Your task to perform on an android device: Open calendar and show me the fourth week of next month Image 0: 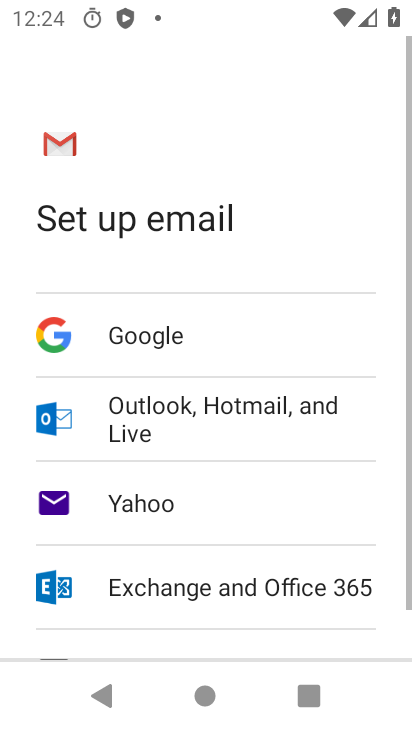
Step 0: press back button
Your task to perform on an android device: Open calendar and show me the fourth week of next month Image 1: 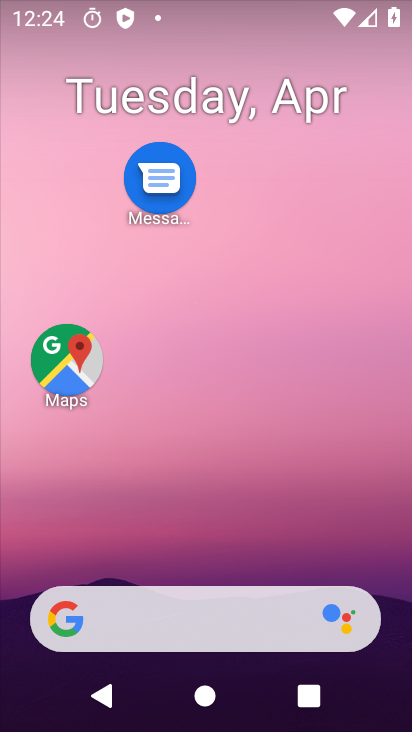
Step 1: drag from (201, 714) to (175, 7)
Your task to perform on an android device: Open calendar and show me the fourth week of next month Image 2: 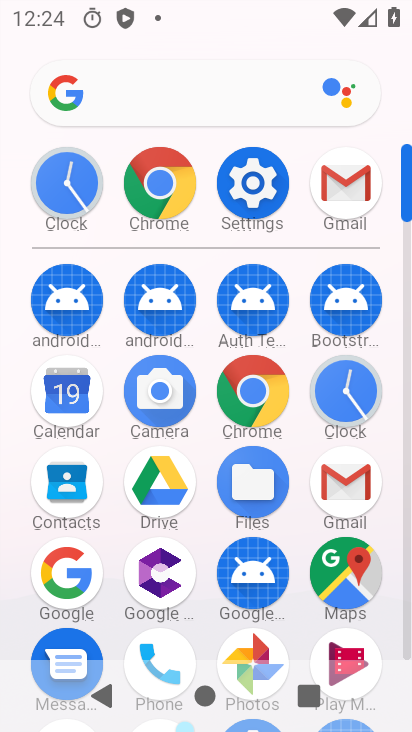
Step 2: click (57, 403)
Your task to perform on an android device: Open calendar and show me the fourth week of next month Image 3: 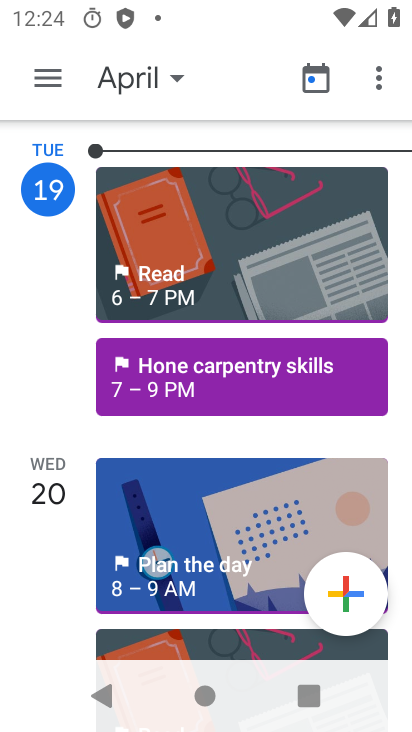
Step 3: click (125, 73)
Your task to perform on an android device: Open calendar and show me the fourth week of next month Image 4: 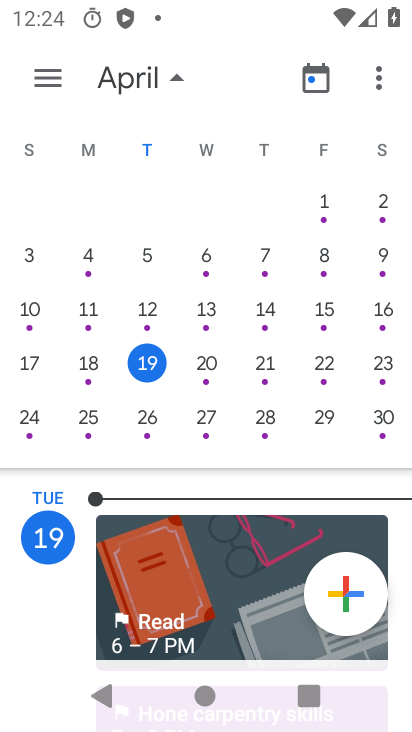
Step 4: drag from (369, 344) to (6, 308)
Your task to perform on an android device: Open calendar and show me the fourth week of next month Image 5: 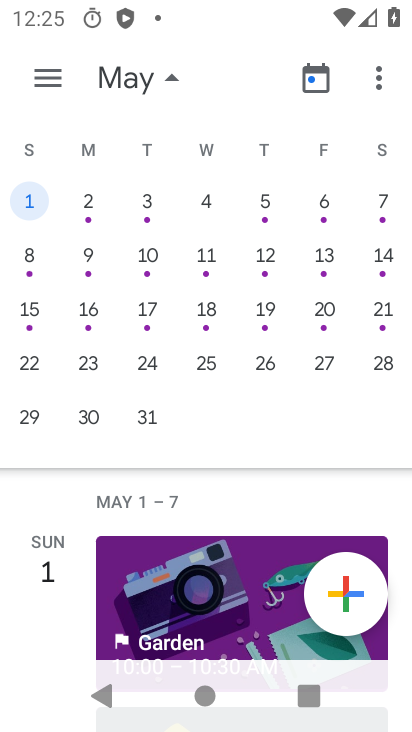
Step 5: click (87, 357)
Your task to perform on an android device: Open calendar and show me the fourth week of next month Image 6: 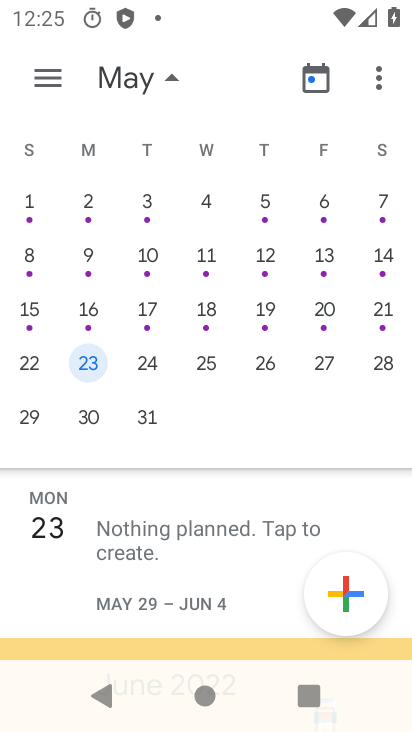
Step 6: task complete